Your task to perform on an android device: allow notifications from all sites in the chrome app Image 0: 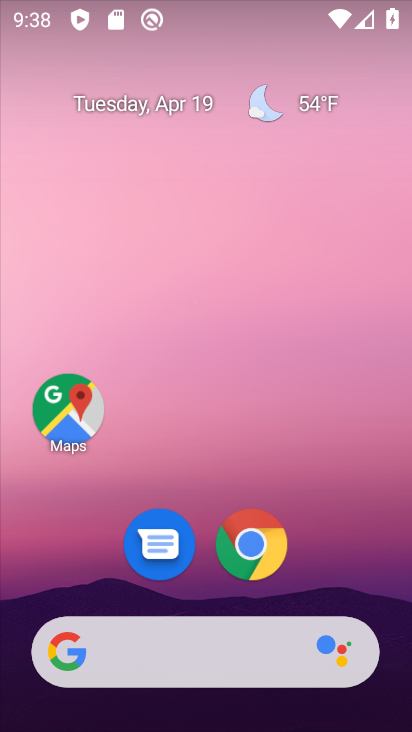
Step 0: click (252, 550)
Your task to perform on an android device: allow notifications from all sites in the chrome app Image 1: 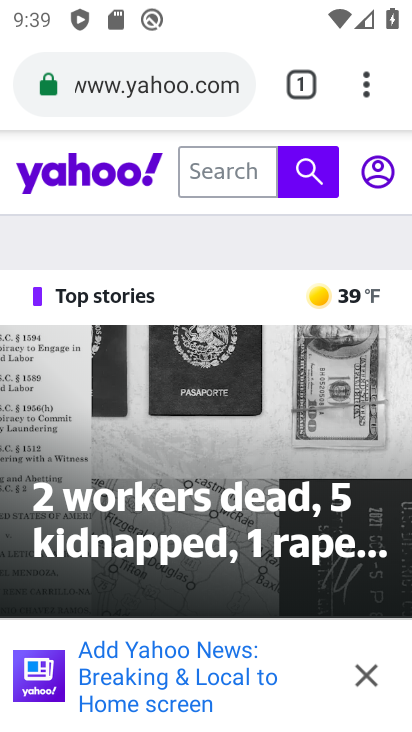
Step 1: press home button
Your task to perform on an android device: allow notifications from all sites in the chrome app Image 2: 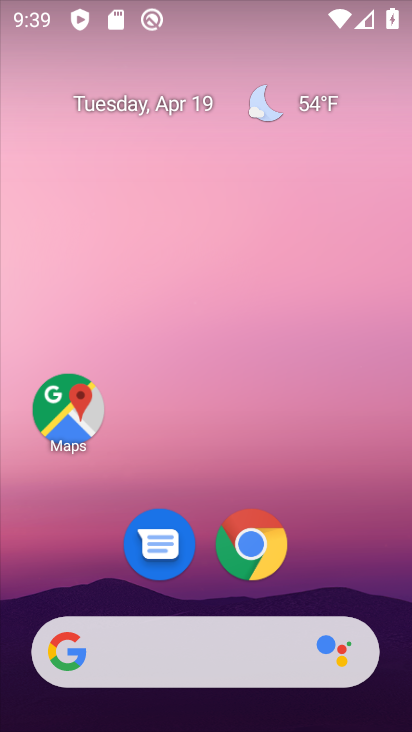
Step 2: click (262, 547)
Your task to perform on an android device: allow notifications from all sites in the chrome app Image 3: 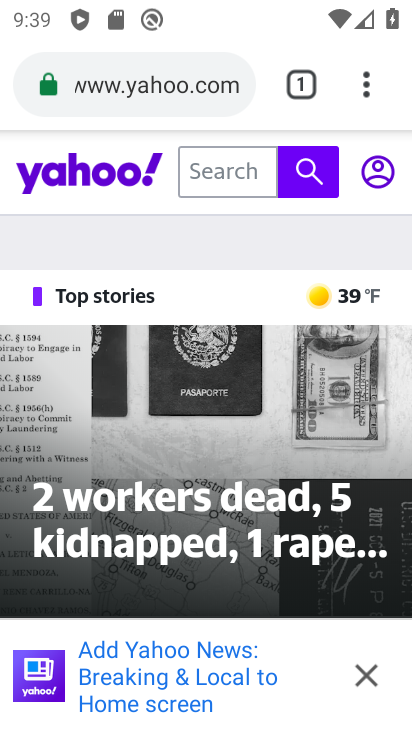
Step 3: drag from (364, 87) to (162, 607)
Your task to perform on an android device: allow notifications from all sites in the chrome app Image 4: 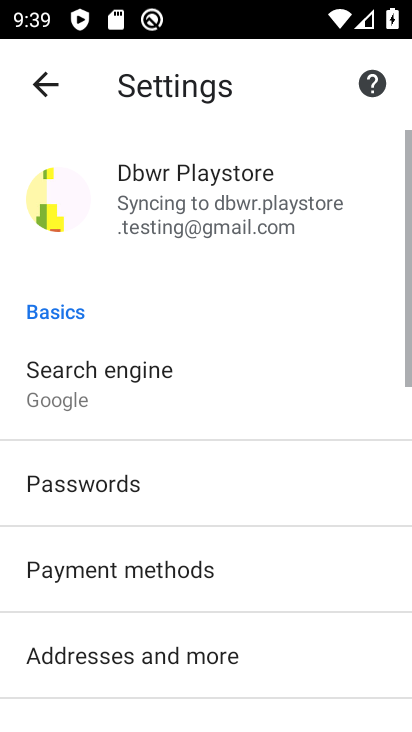
Step 4: drag from (185, 642) to (195, 286)
Your task to perform on an android device: allow notifications from all sites in the chrome app Image 5: 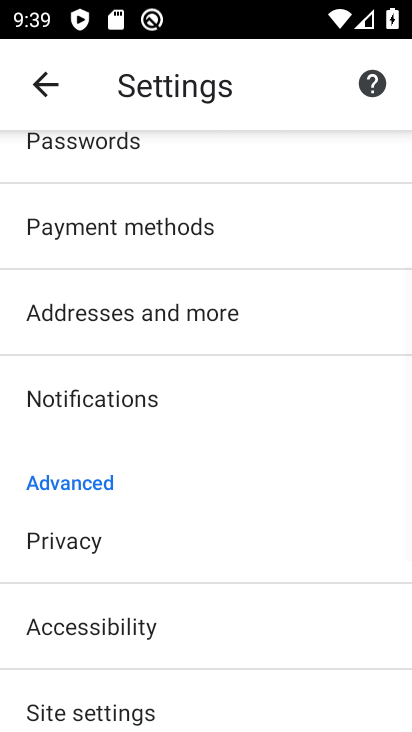
Step 5: drag from (149, 644) to (169, 392)
Your task to perform on an android device: allow notifications from all sites in the chrome app Image 6: 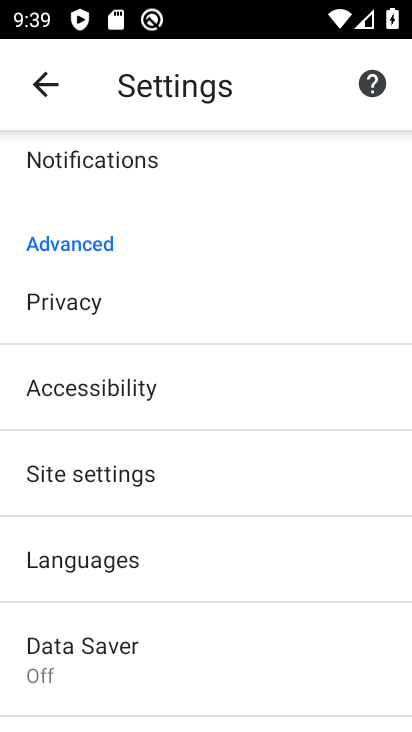
Step 6: click (134, 491)
Your task to perform on an android device: allow notifications from all sites in the chrome app Image 7: 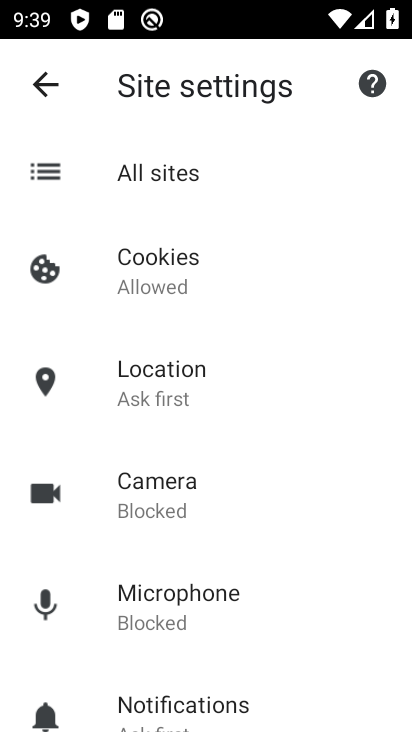
Step 7: click (184, 708)
Your task to perform on an android device: allow notifications from all sites in the chrome app Image 8: 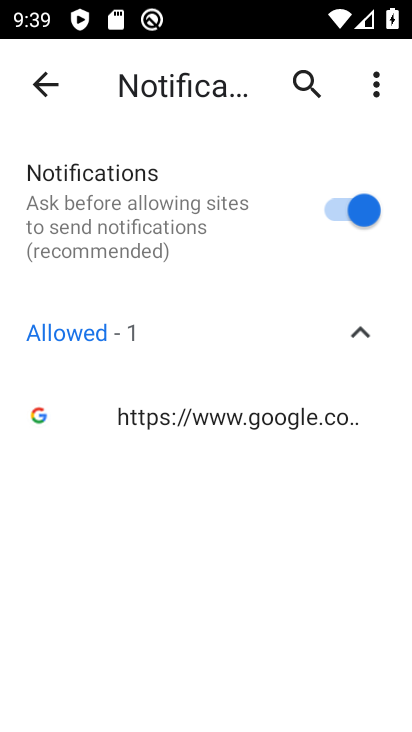
Step 8: task complete